Your task to perform on an android device: visit the assistant section in the google photos Image 0: 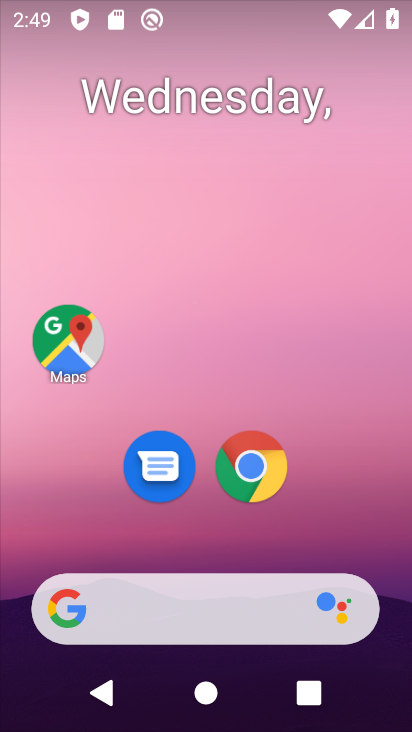
Step 0: drag from (381, 570) to (317, 209)
Your task to perform on an android device: visit the assistant section in the google photos Image 1: 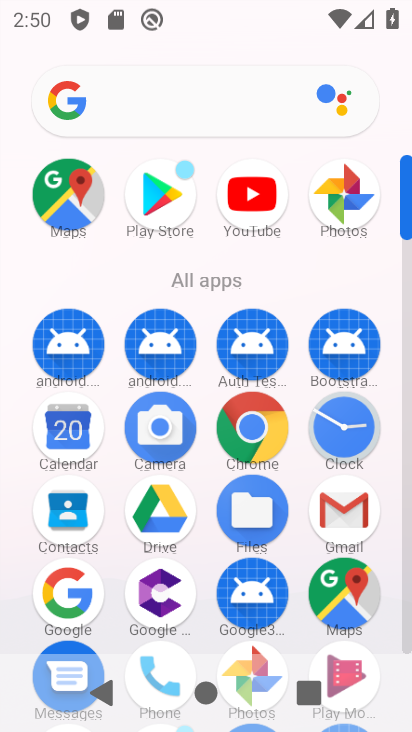
Step 1: click (409, 640)
Your task to perform on an android device: visit the assistant section in the google photos Image 2: 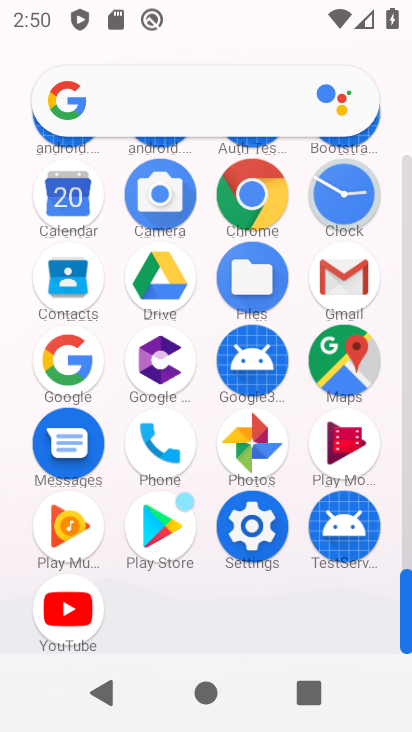
Step 2: click (258, 447)
Your task to perform on an android device: visit the assistant section in the google photos Image 3: 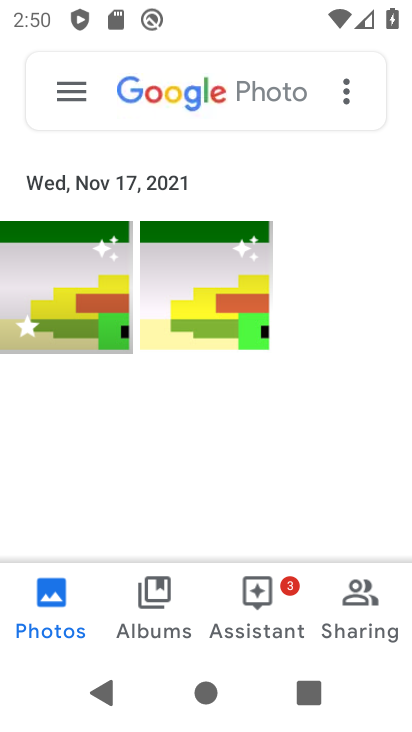
Step 3: click (260, 597)
Your task to perform on an android device: visit the assistant section in the google photos Image 4: 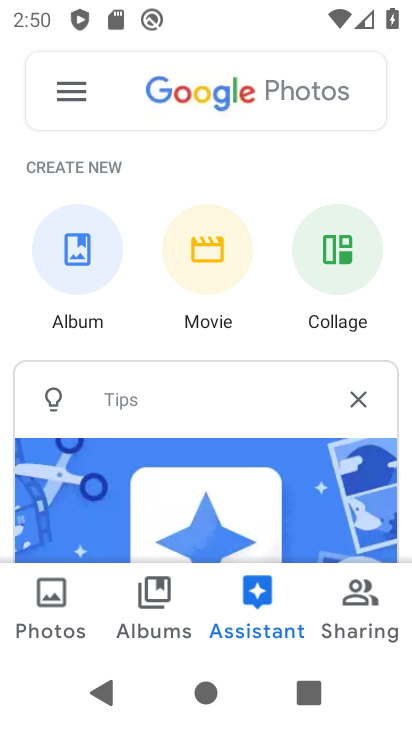
Step 4: task complete